Your task to perform on an android device: Search for flights from NYC to Buenos aires Image 0: 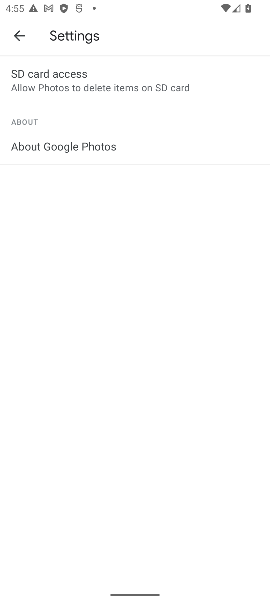
Step 0: press home button
Your task to perform on an android device: Search for flights from NYC to Buenos aires Image 1: 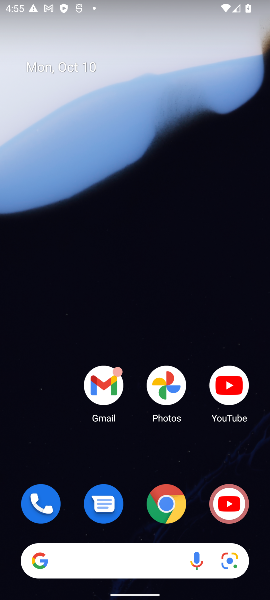
Step 1: drag from (220, 292) to (213, 70)
Your task to perform on an android device: Search for flights from NYC to Buenos aires Image 2: 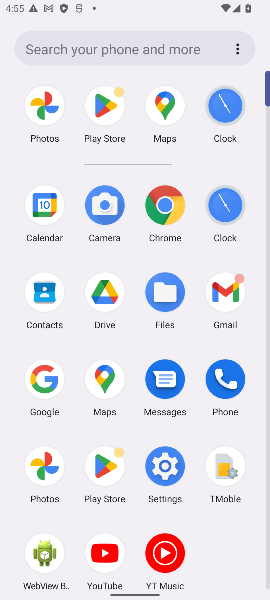
Step 2: click (161, 206)
Your task to perform on an android device: Search for flights from NYC to Buenos aires Image 3: 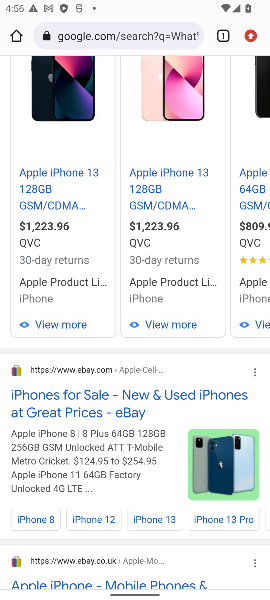
Step 3: click (111, 49)
Your task to perform on an android device: Search for flights from NYC to Buenos aires Image 4: 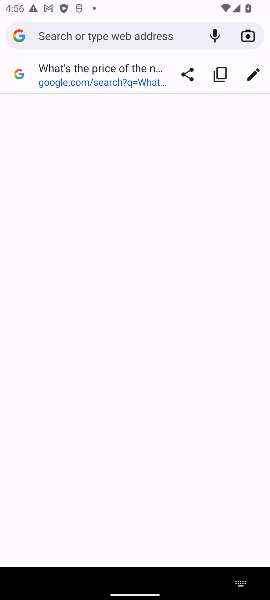
Step 4: type "Search for flights from NYC to Buenos aires"
Your task to perform on an android device: Search for flights from NYC to Buenos aires Image 5: 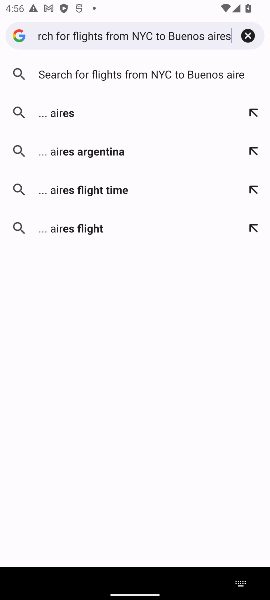
Step 5: press enter
Your task to perform on an android device: Search for flights from NYC to Buenos aires Image 6: 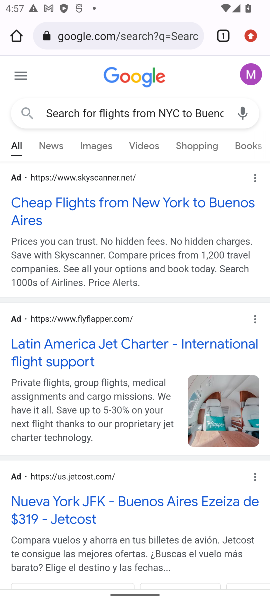
Step 6: click (42, 208)
Your task to perform on an android device: Search for flights from NYC to Buenos aires Image 7: 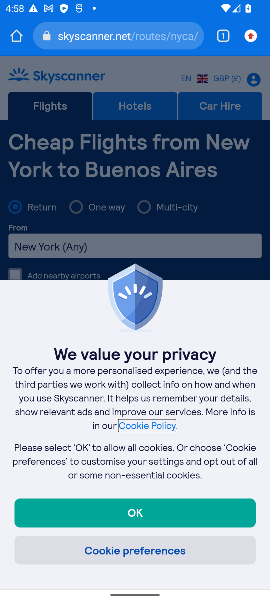
Step 7: click (128, 43)
Your task to perform on an android device: Search for flights from NYC to Buenos aires Image 8: 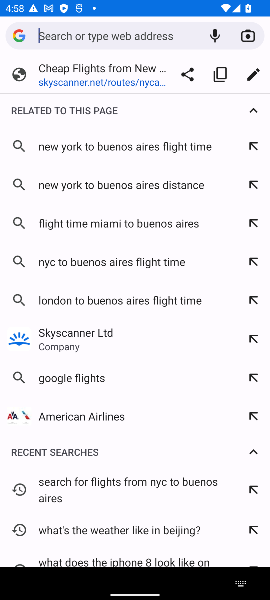
Step 8: task complete